Your task to perform on an android device: Show me the alarms in the clock app Image 0: 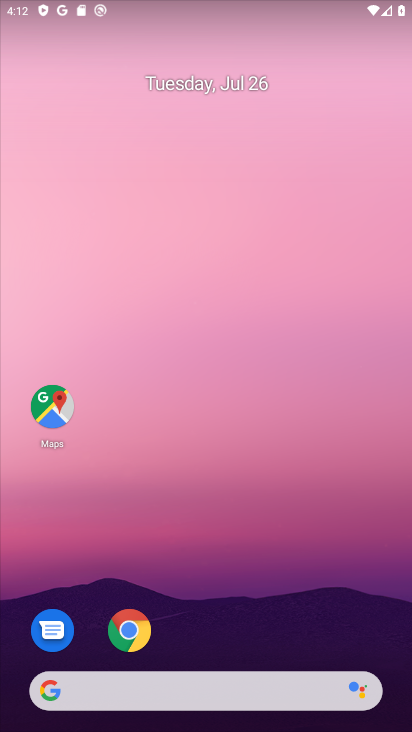
Step 0: drag from (342, 584) to (278, 69)
Your task to perform on an android device: Show me the alarms in the clock app Image 1: 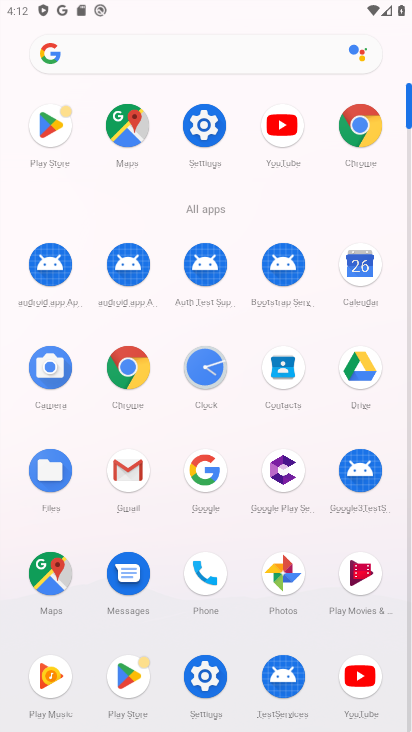
Step 1: click (219, 366)
Your task to perform on an android device: Show me the alarms in the clock app Image 2: 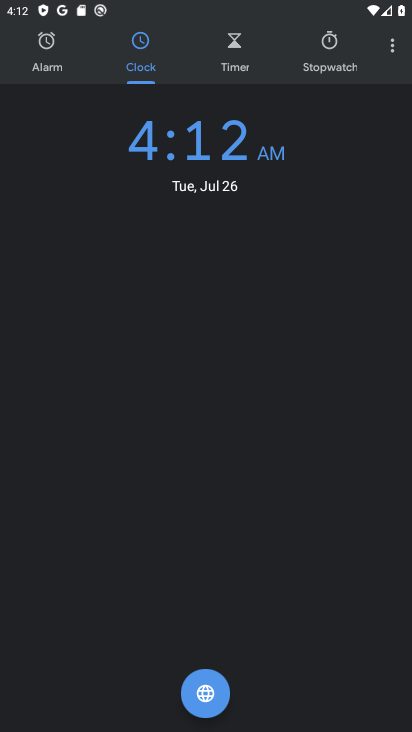
Step 2: click (67, 55)
Your task to perform on an android device: Show me the alarms in the clock app Image 3: 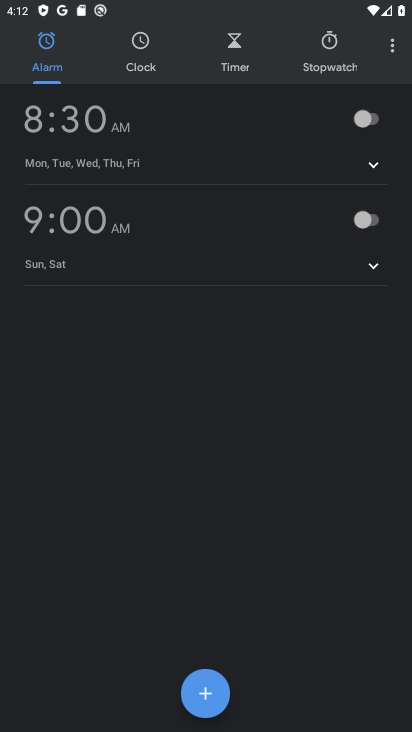
Step 3: task complete